Your task to perform on an android device: What is the news today? Image 0: 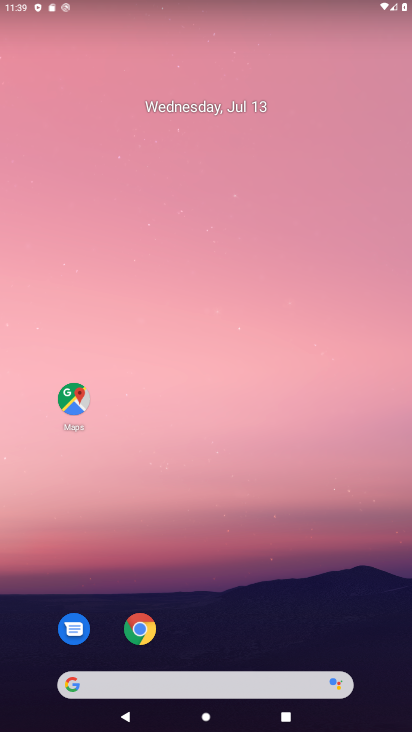
Step 0: drag from (229, 717) to (268, 119)
Your task to perform on an android device: What is the news today? Image 1: 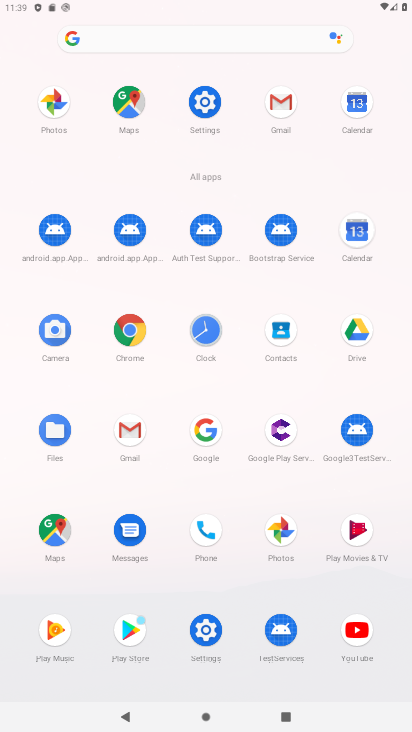
Step 1: drag from (250, 441) to (240, 175)
Your task to perform on an android device: What is the news today? Image 2: 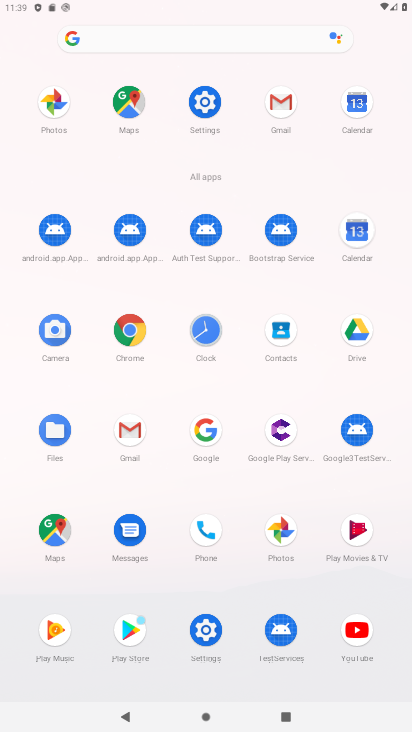
Step 2: click (129, 329)
Your task to perform on an android device: What is the news today? Image 3: 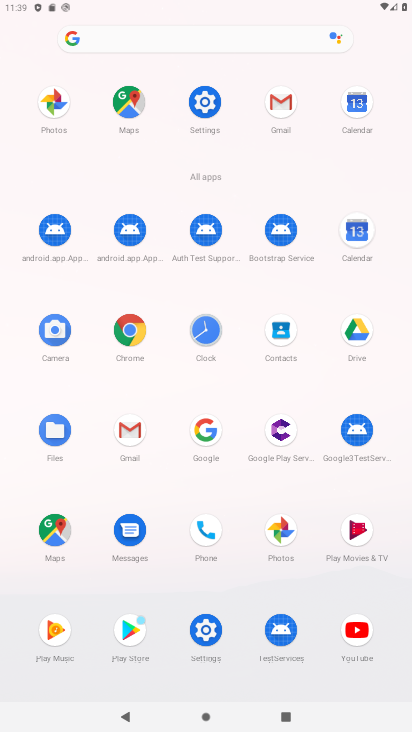
Step 3: click (129, 329)
Your task to perform on an android device: What is the news today? Image 4: 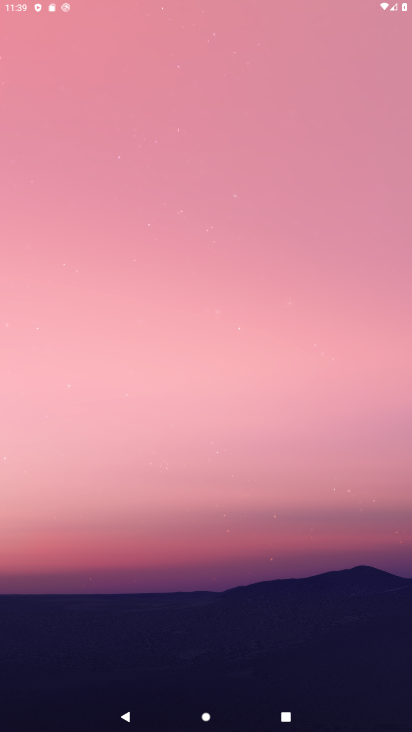
Step 4: click (132, 332)
Your task to perform on an android device: What is the news today? Image 5: 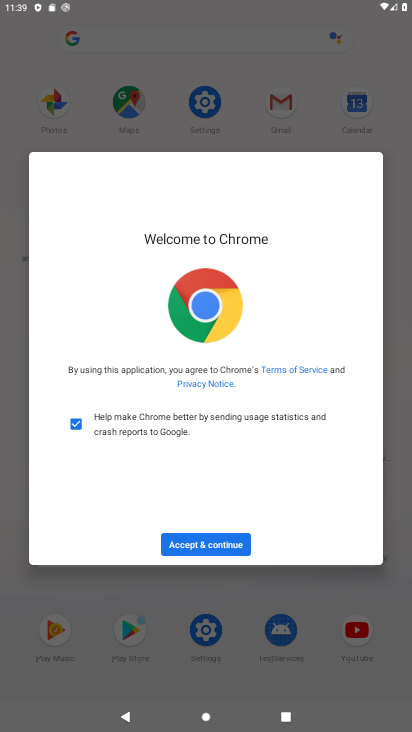
Step 5: click (207, 541)
Your task to perform on an android device: What is the news today? Image 6: 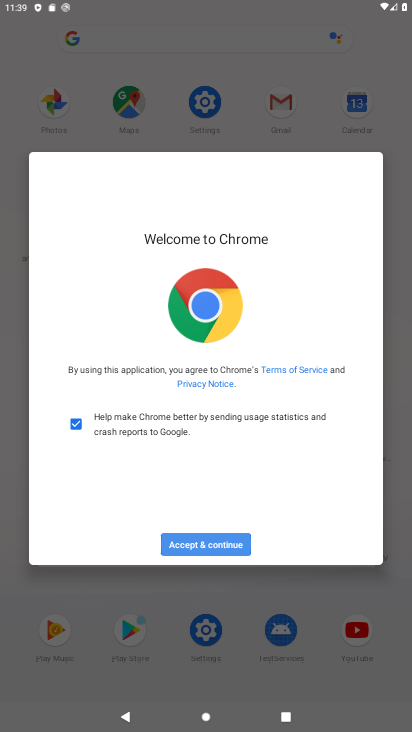
Step 6: click (205, 539)
Your task to perform on an android device: What is the news today? Image 7: 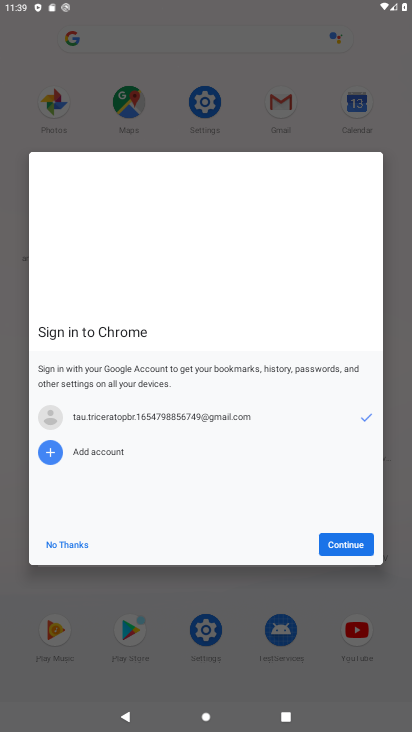
Step 7: click (357, 536)
Your task to perform on an android device: What is the news today? Image 8: 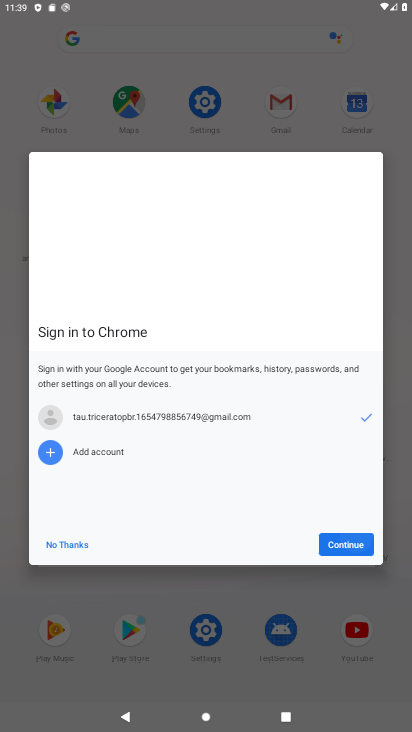
Step 8: click (354, 535)
Your task to perform on an android device: What is the news today? Image 9: 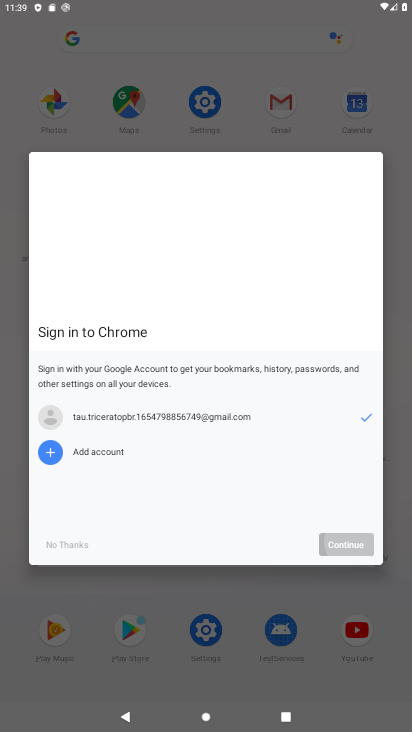
Step 9: click (354, 535)
Your task to perform on an android device: What is the news today? Image 10: 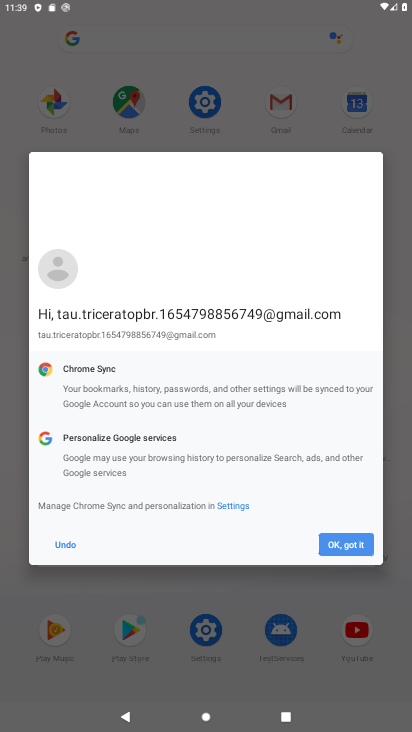
Step 10: click (354, 535)
Your task to perform on an android device: What is the news today? Image 11: 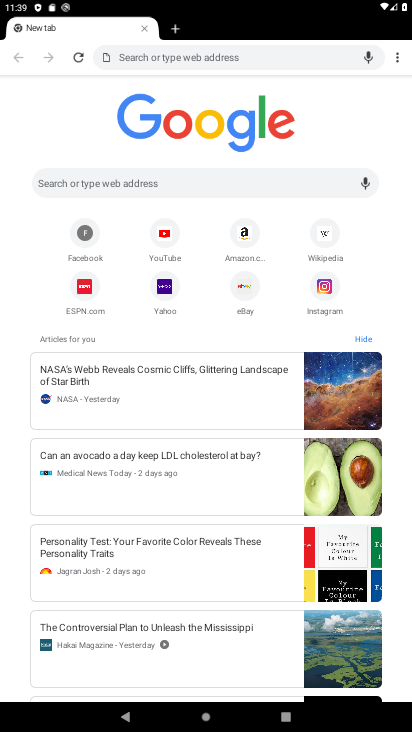
Step 11: drag from (168, 626) to (138, 344)
Your task to perform on an android device: What is the news today? Image 12: 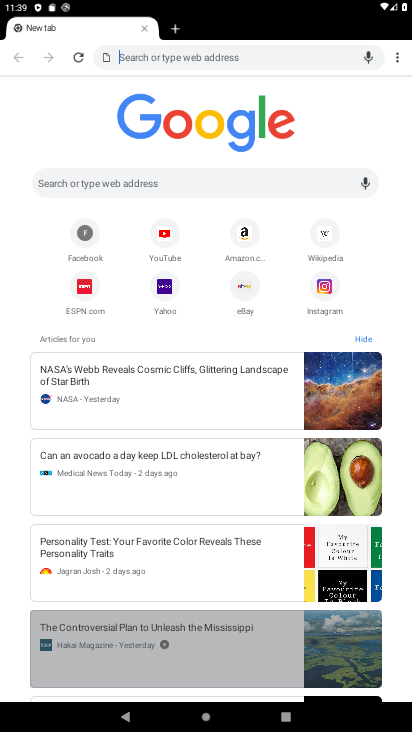
Step 12: click (126, 284)
Your task to perform on an android device: What is the news today? Image 13: 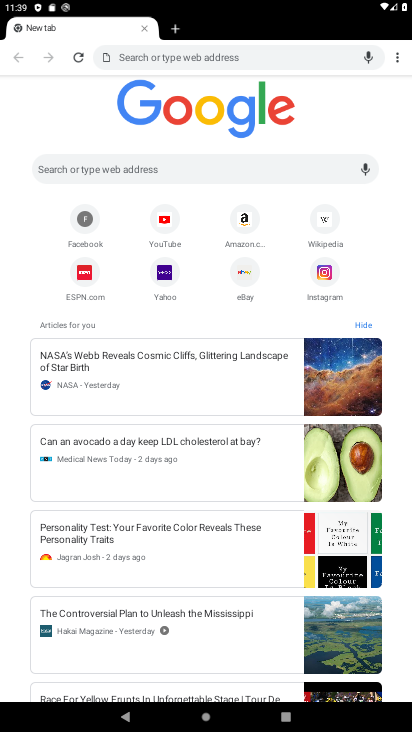
Step 13: task complete